Your task to perform on an android device: turn on translation in the chrome app Image 0: 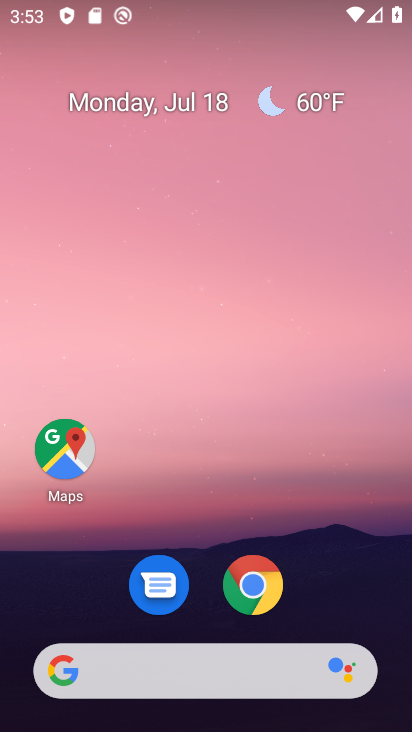
Step 0: click (261, 578)
Your task to perform on an android device: turn on translation in the chrome app Image 1: 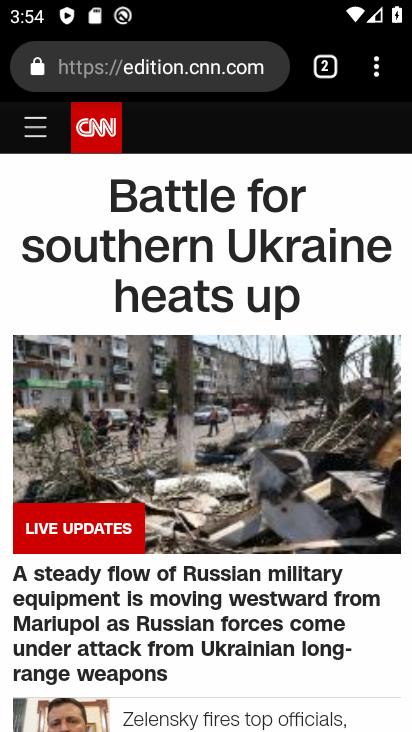
Step 1: click (374, 75)
Your task to perform on an android device: turn on translation in the chrome app Image 2: 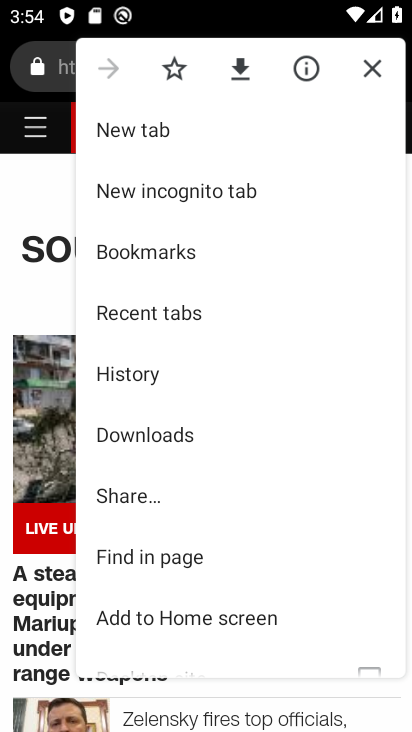
Step 2: drag from (226, 539) to (259, 172)
Your task to perform on an android device: turn on translation in the chrome app Image 3: 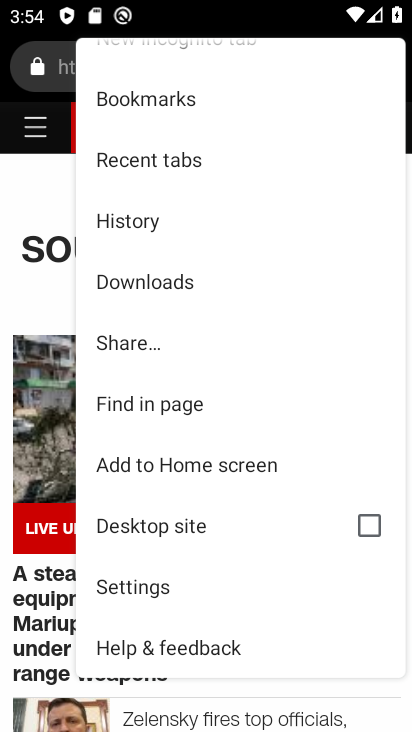
Step 3: click (161, 585)
Your task to perform on an android device: turn on translation in the chrome app Image 4: 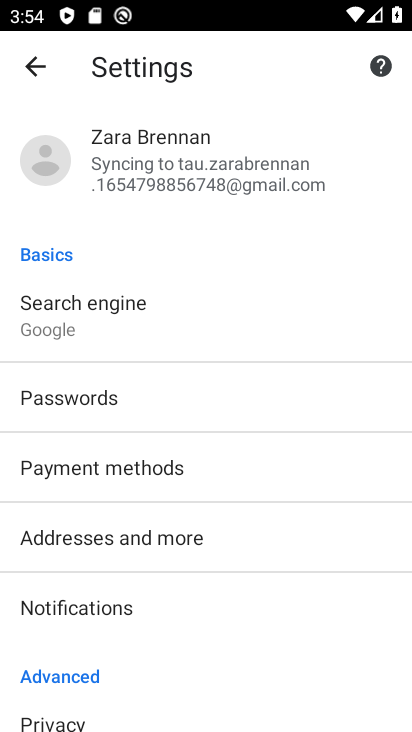
Step 4: drag from (210, 602) to (290, 224)
Your task to perform on an android device: turn on translation in the chrome app Image 5: 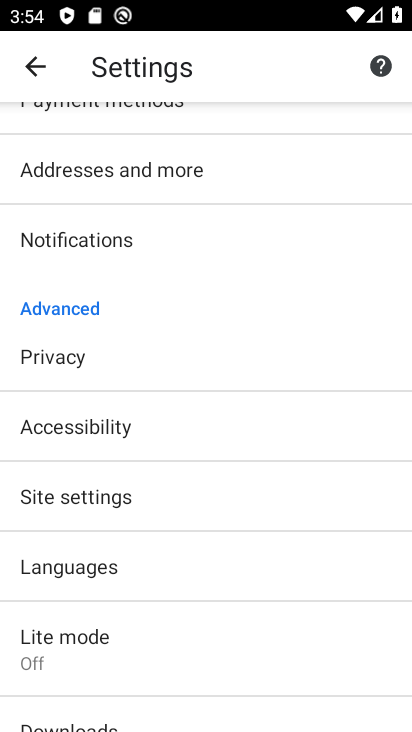
Step 5: click (102, 497)
Your task to perform on an android device: turn on translation in the chrome app Image 6: 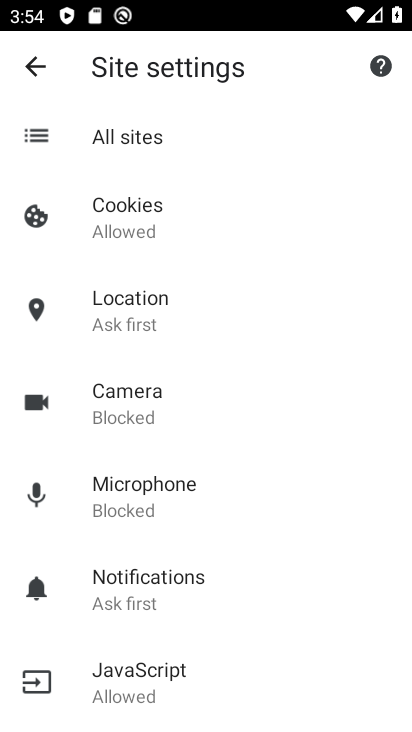
Step 6: click (41, 58)
Your task to perform on an android device: turn on translation in the chrome app Image 7: 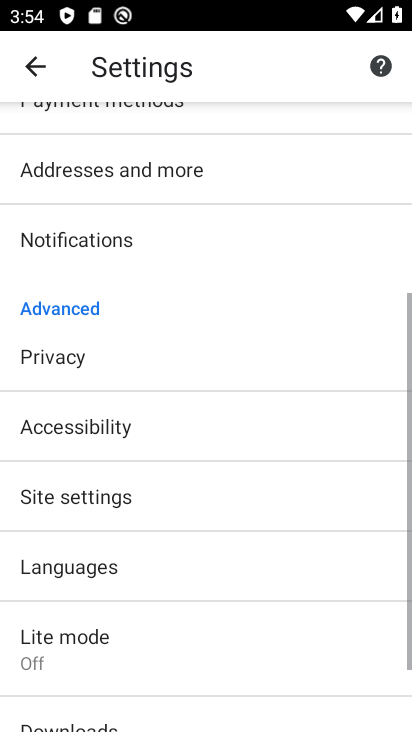
Step 7: click (207, 566)
Your task to perform on an android device: turn on translation in the chrome app Image 8: 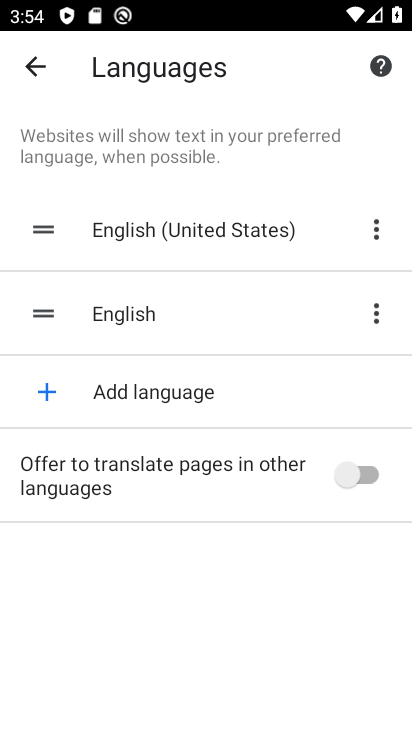
Step 8: click (361, 470)
Your task to perform on an android device: turn on translation in the chrome app Image 9: 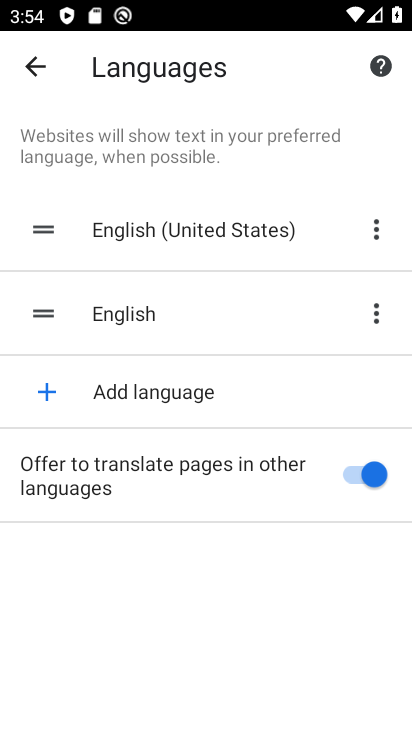
Step 9: task complete